Your task to perform on an android device: turn on improve location accuracy Image 0: 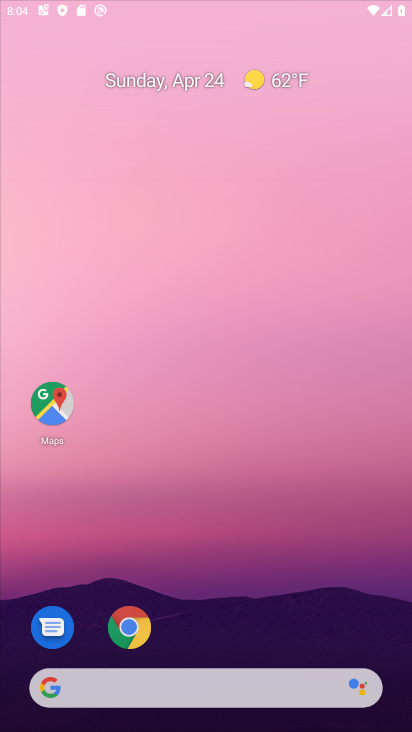
Step 0: drag from (239, 609) to (119, 31)
Your task to perform on an android device: turn on improve location accuracy Image 1: 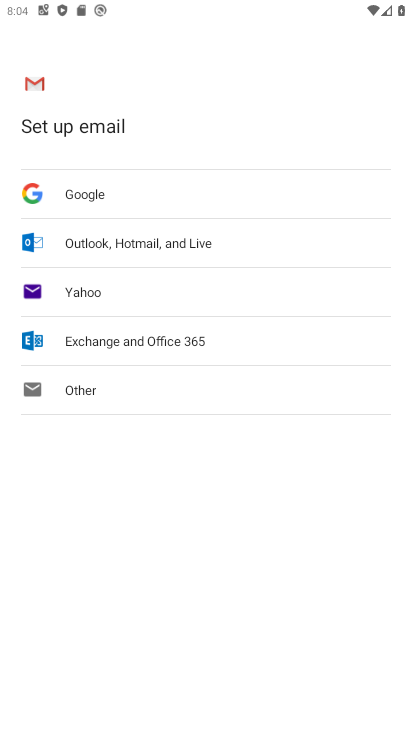
Step 1: press back button
Your task to perform on an android device: turn on improve location accuracy Image 2: 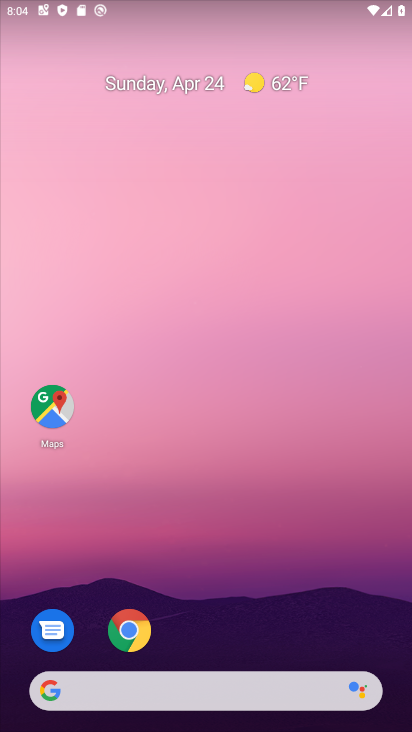
Step 2: drag from (304, 524) to (177, 6)
Your task to perform on an android device: turn on improve location accuracy Image 3: 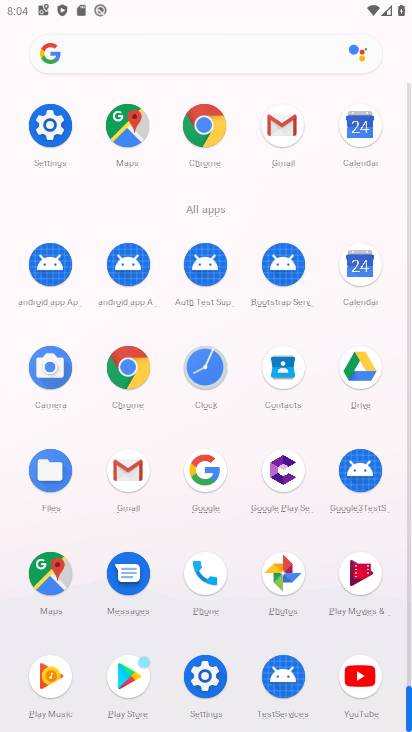
Step 3: drag from (4, 479) to (8, 200)
Your task to perform on an android device: turn on improve location accuracy Image 4: 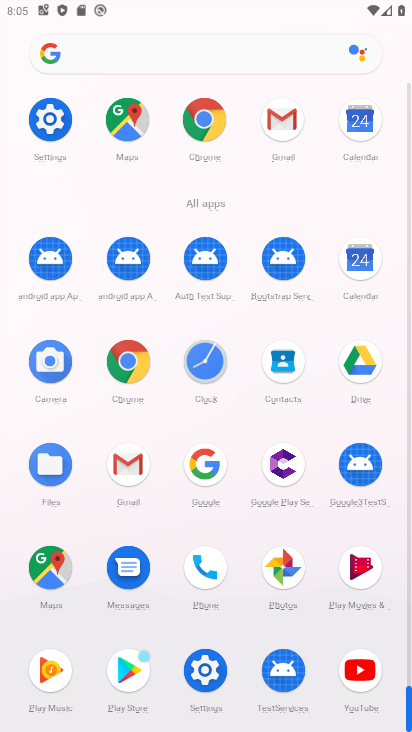
Step 4: click (206, 665)
Your task to perform on an android device: turn on improve location accuracy Image 5: 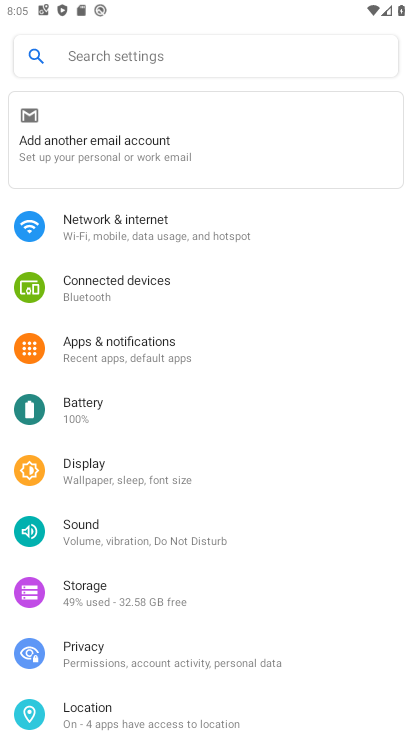
Step 5: drag from (278, 572) to (285, 193)
Your task to perform on an android device: turn on improve location accuracy Image 6: 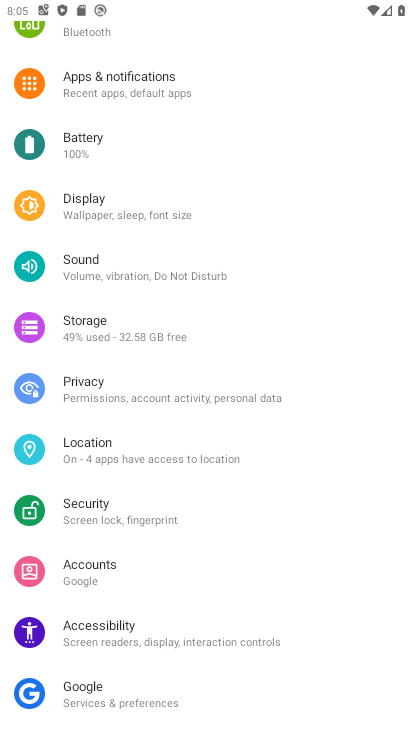
Step 6: click (122, 445)
Your task to perform on an android device: turn on improve location accuracy Image 7: 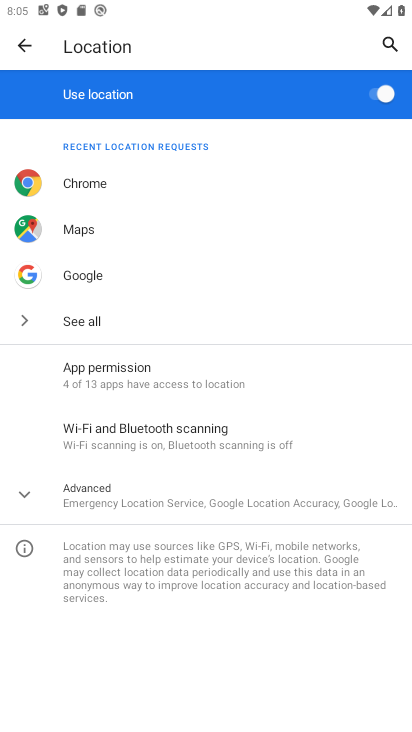
Step 7: click (48, 487)
Your task to perform on an android device: turn on improve location accuracy Image 8: 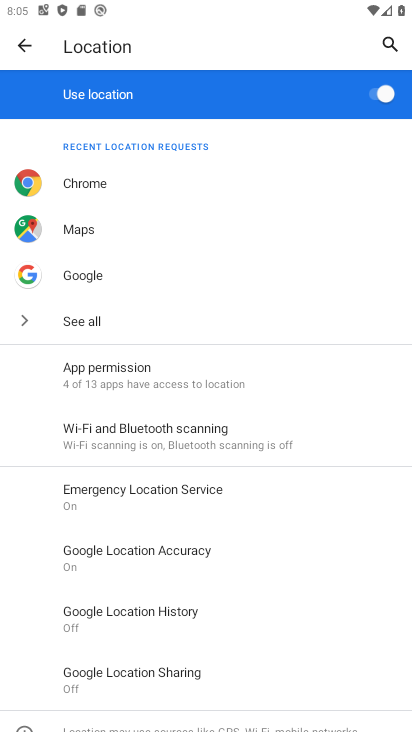
Step 8: click (194, 560)
Your task to perform on an android device: turn on improve location accuracy Image 9: 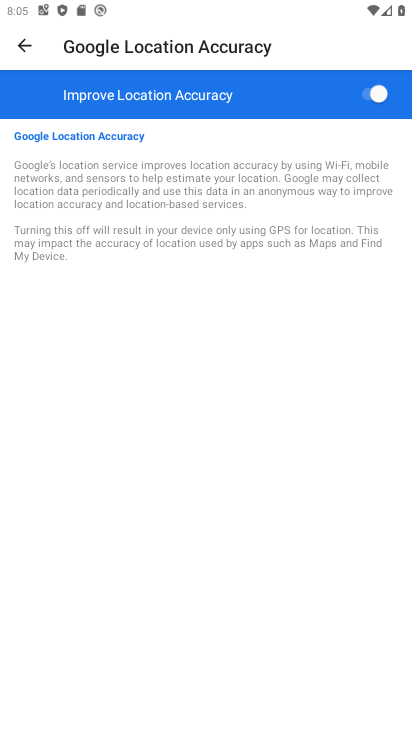
Step 9: task complete